Your task to perform on an android device: change your default location settings in chrome Image 0: 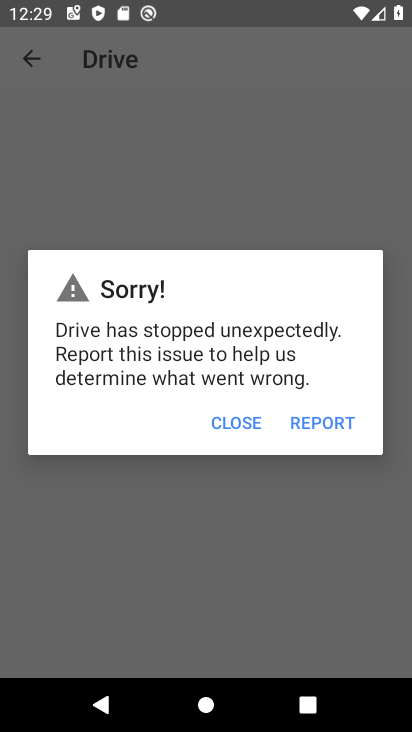
Step 0: press home button
Your task to perform on an android device: change your default location settings in chrome Image 1: 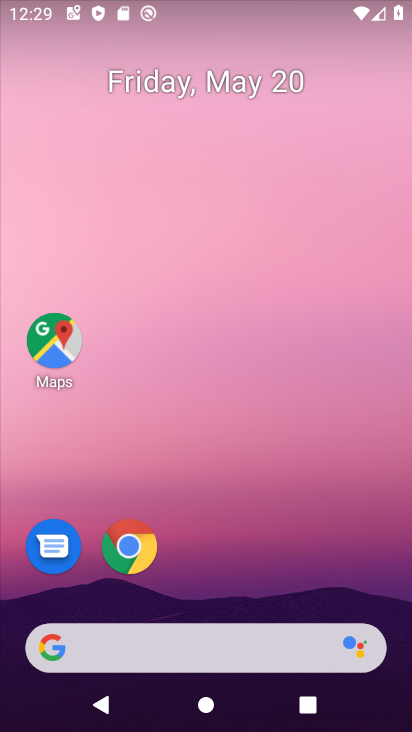
Step 1: drag from (296, 542) to (273, 68)
Your task to perform on an android device: change your default location settings in chrome Image 2: 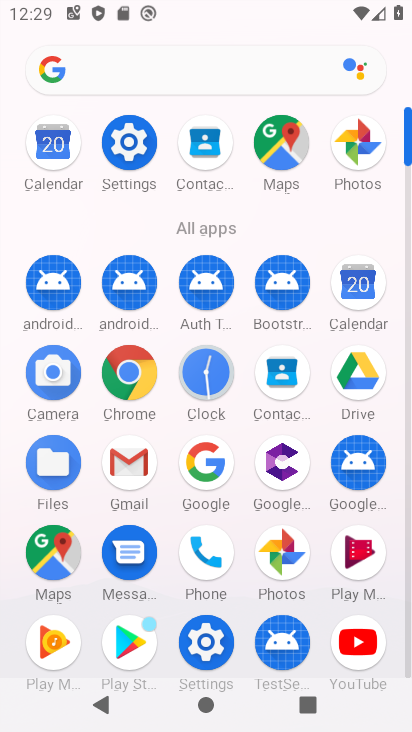
Step 2: click (146, 370)
Your task to perform on an android device: change your default location settings in chrome Image 3: 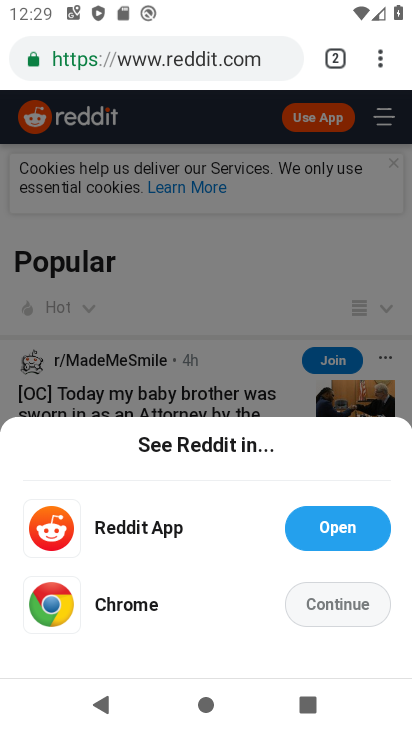
Step 3: click (382, 56)
Your task to perform on an android device: change your default location settings in chrome Image 4: 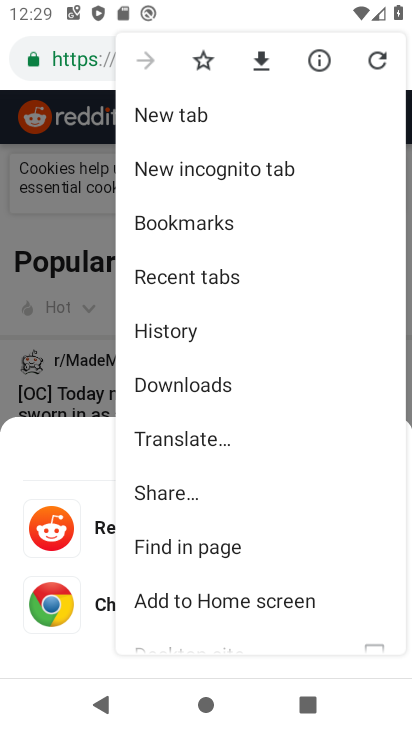
Step 4: drag from (277, 468) to (289, 304)
Your task to perform on an android device: change your default location settings in chrome Image 5: 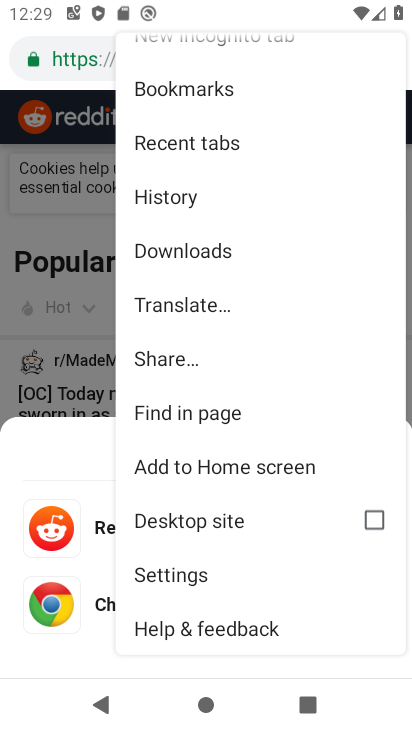
Step 5: click (188, 564)
Your task to perform on an android device: change your default location settings in chrome Image 6: 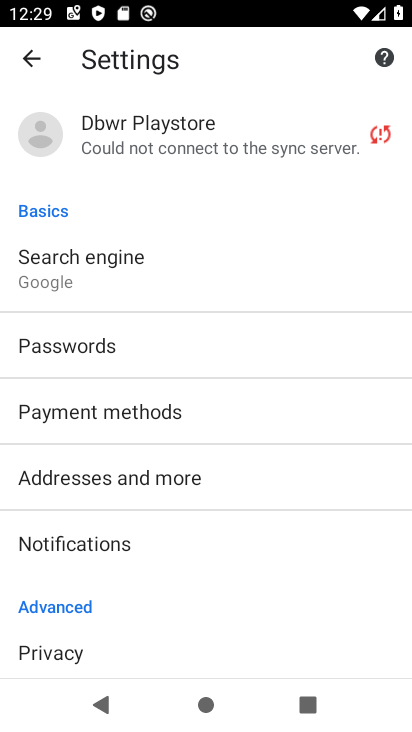
Step 6: drag from (260, 472) to (286, 296)
Your task to perform on an android device: change your default location settings in chrome Image 7: 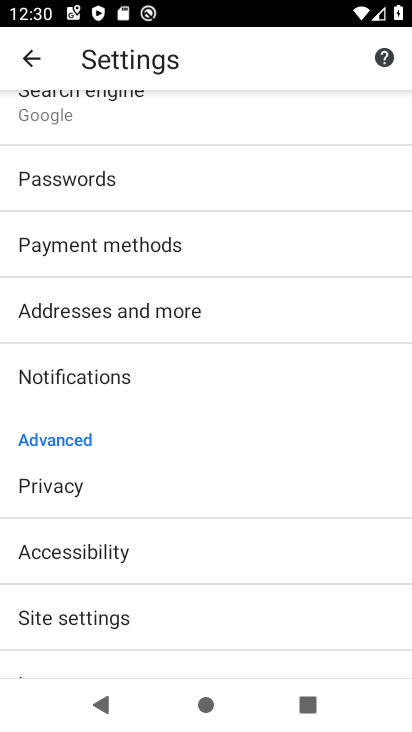
Step 7: click (139, 616)
Your task to perform on an android device: change your default location settings in chrome Image 8: 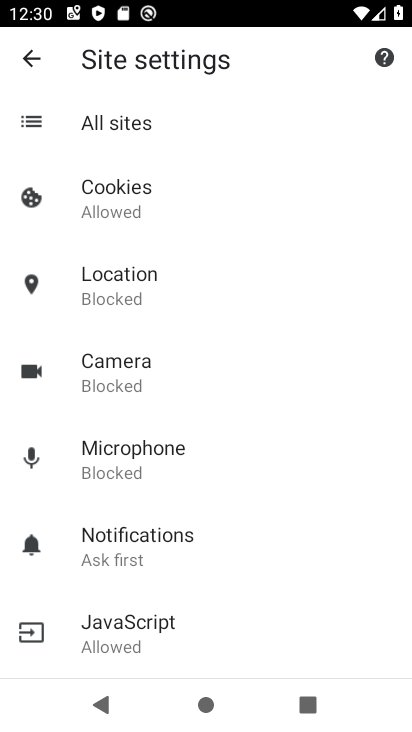
Step 8: click (149, 289)
Your task to perform on an android device: change your default location settings in chrome Image 9: 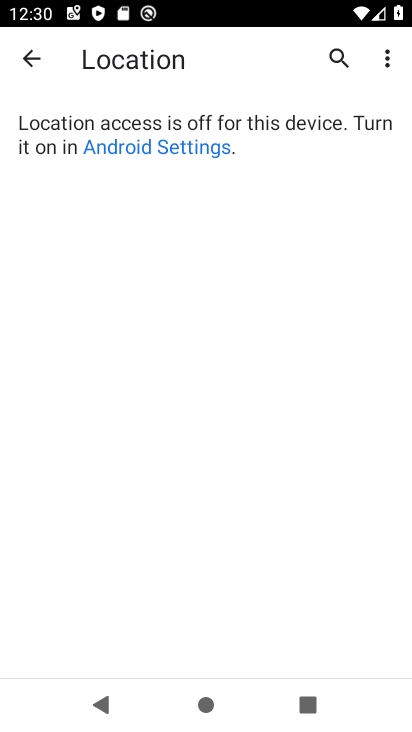
Step 9: click (208, 150)
Your task to perform on an android device: change your default location settings in chrome Image 10: 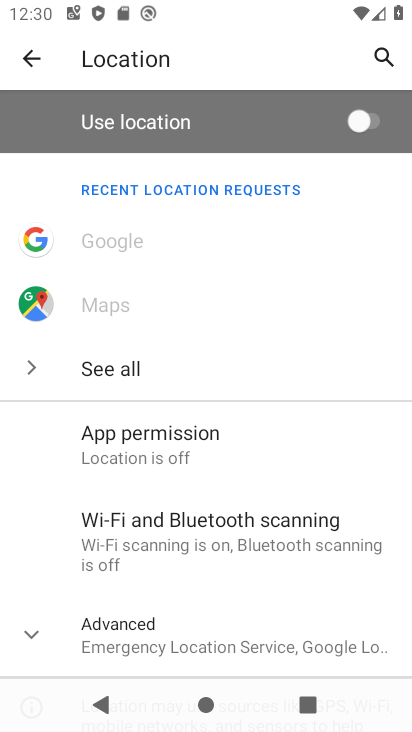
Step 10: click (367, 125)
Your task to perform on an android device: change your default location settings in chrome Image 11: 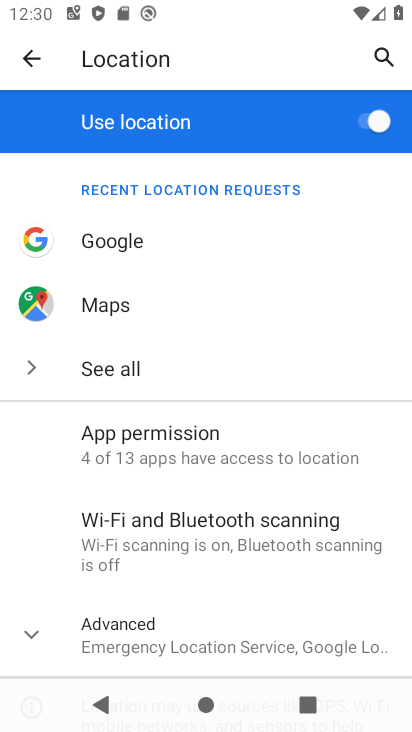
Step 11: click (38, 58)
Your task to perform on an android device: change your default location settings in chrome Image 12: 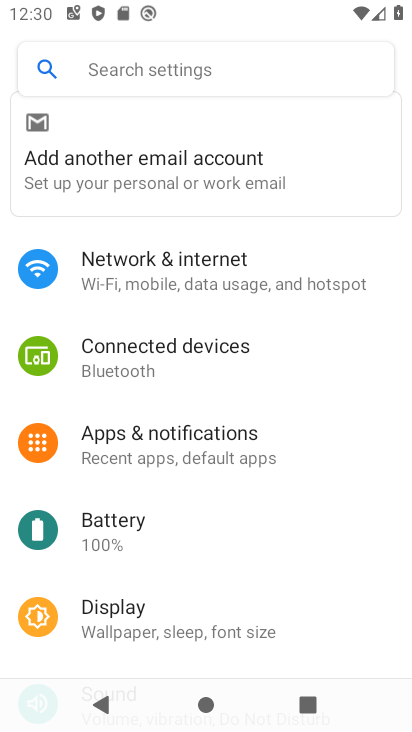
Step 12: task complete